Your task to perform on an android device: move an email to a new category in the gmail app Image 0: 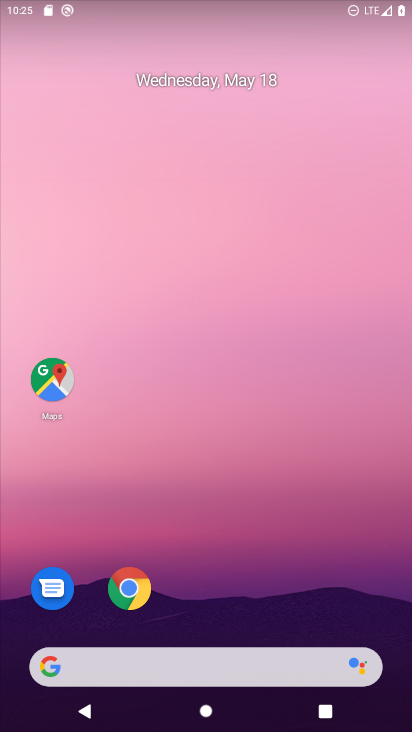
Step 0: drag from (374, 626) to (335, 0)
Your task to perform on an android device: move an email to a new category in the gmail app Image 1: 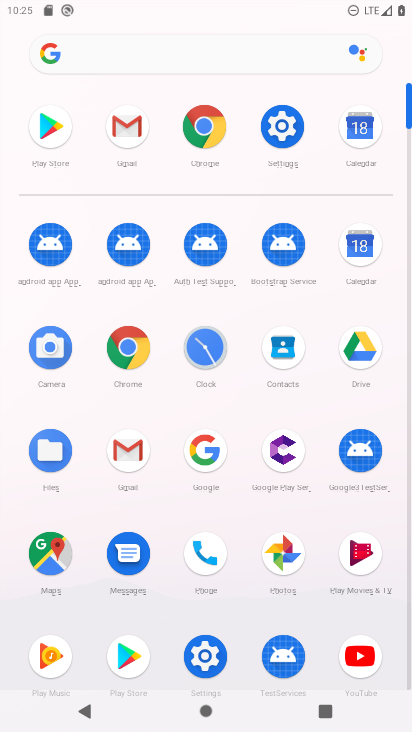
Step 1: click (141, 461)
Your task to perform on an android device: move an email to a new category in the gmail app Image 2: 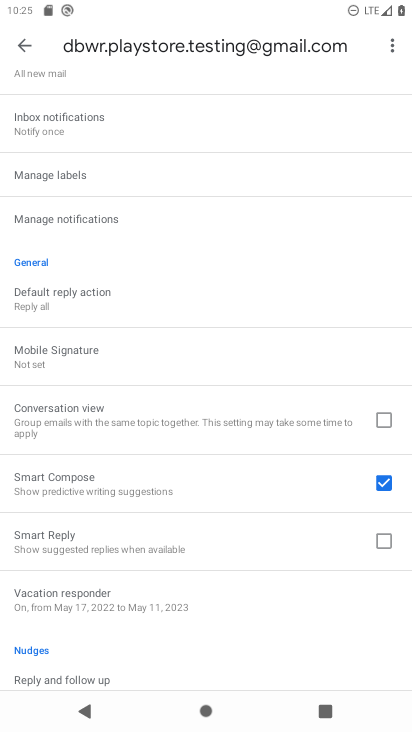
Step 2: click (20, 53)
Your task to perform on an android device: move an email to a new category in the gmail app Image 3: 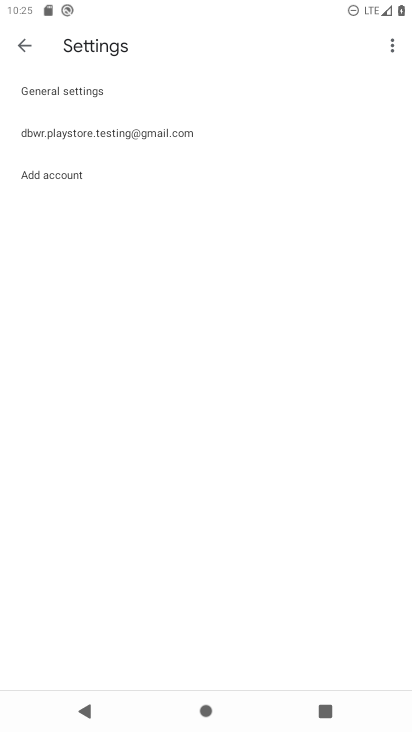
Step 3: click (20, 53)
Your task to perform on an android device: move an email to a new category in the gmail app Image 4: 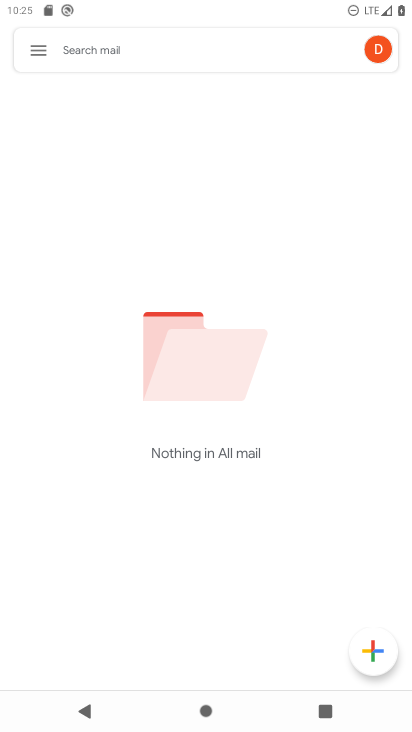
Step 4: task complete